Your task to perform on an android device: Open maps Image 0: 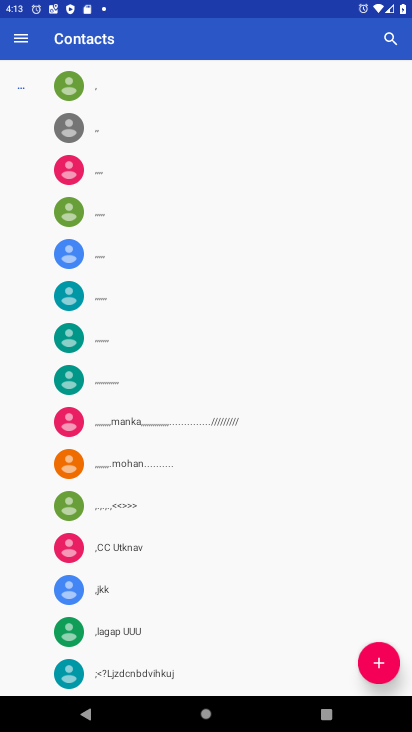
Step 0: press home button
Your task to perform on an android device: Open maps Image 1: 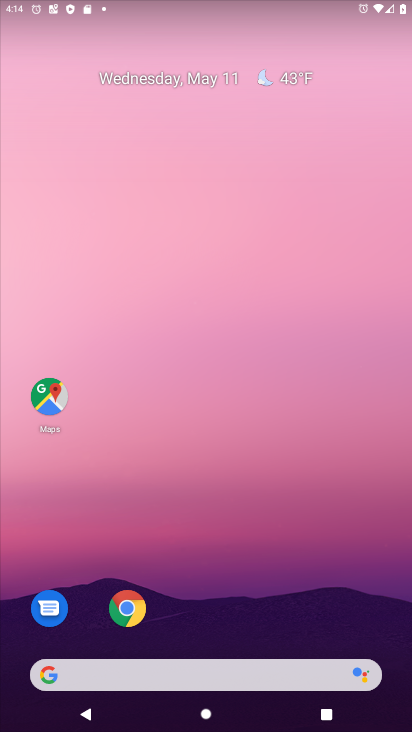
Step 1: drag from (224, 727) to (228, 21)
Your task to perform on an android device: Open maps Image 2: 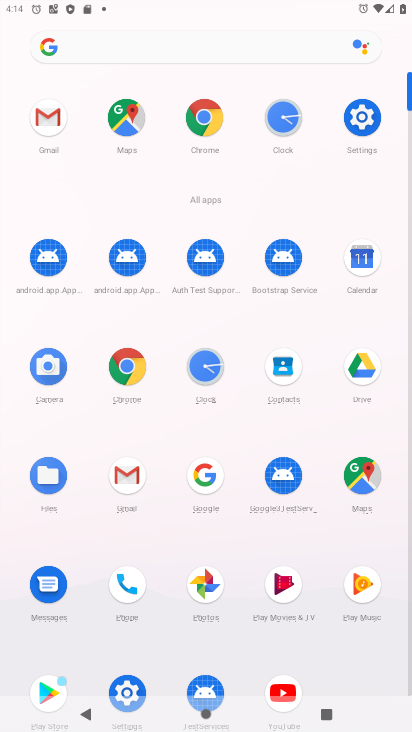
Step 2: click (369, 470)
Your task to perform on an android device: Open maps Image 3: 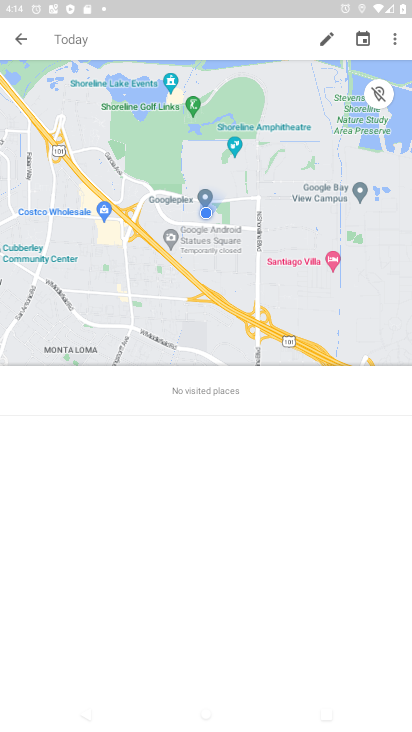
Step 3: task complete